Your task to perform on an android device: install app "Google Play Music" Image 0: 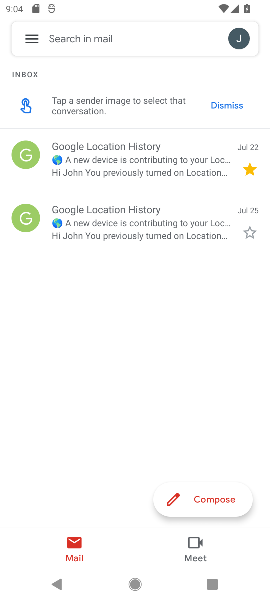
Step 0: press home button
Your task to perform on an android device: install app "Google Play Music" Image 1: 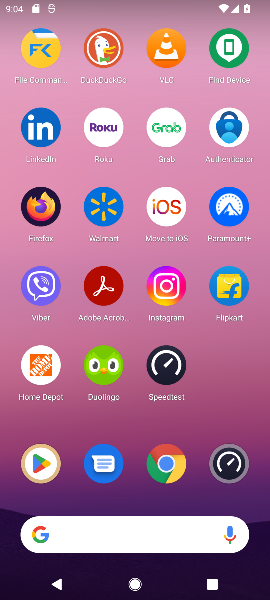
Step 1: click (24, 468)
Your task to perform on an android device: install app "Google Play Music" Image 2: 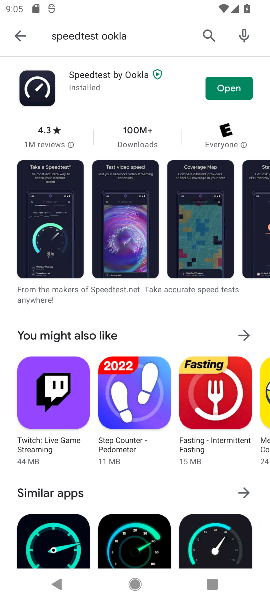
Step 2: click (211, 35)
Your task to perform on an android device: install app "Google Play Music" Image 3: 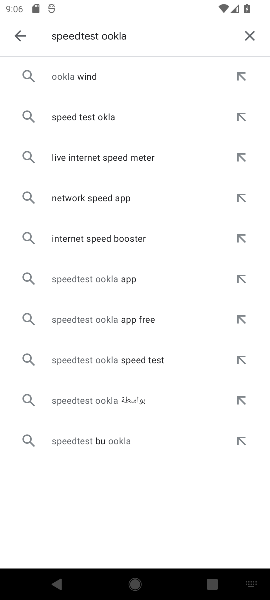
Step 3: click (249, 40)
Your task to perform on an android device: install app "Google Play Music" Image 4: 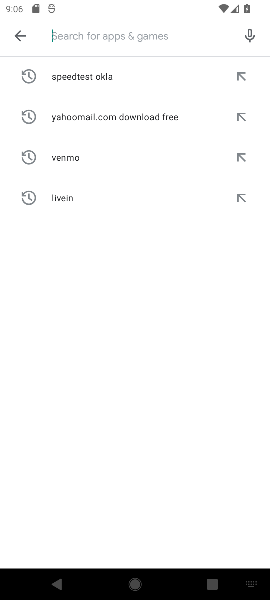
Step 4: type "play music"
Your task to perform on an android device: install app "Google Play Music" Image 5: 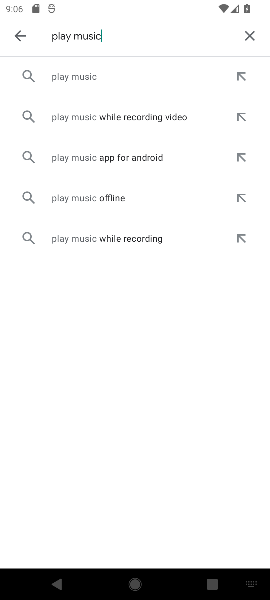
Step 5: click (117, 87)
Your task to perform on an android device: install app "Google Play Music" Image 6: 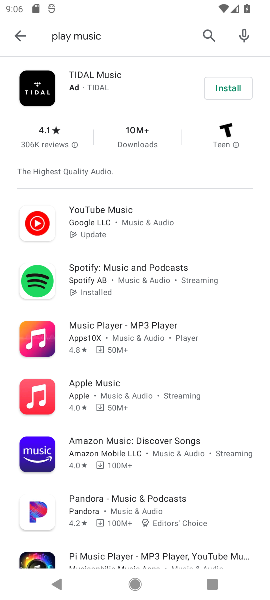
Step 6: click (132, 208)
Your task to perform on an android device: install app "Google Play Music" Image 7: 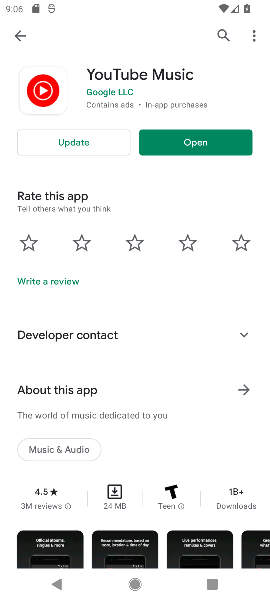
Step 7: task complete